Your task to perform on an android device: Open calendar and show me the fourth week of next month Image 0: 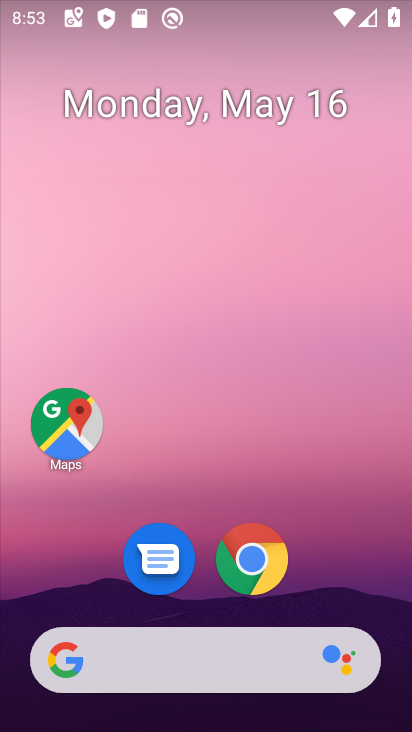
Step 0: drag from (288, 601) to (284, 32)
Your task to perform on an android device: Open calendar and show me the fourth week of next month Image 1: 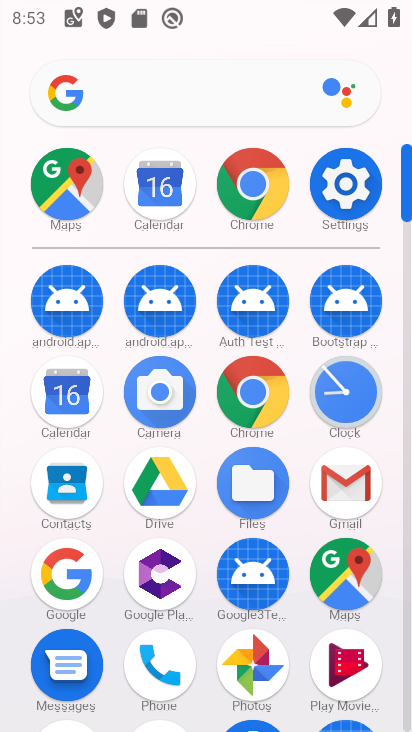
Step 1: click (157, 202)
Your task to perform on an android device: Open calendar and show me the fourth week of next month Image 2: 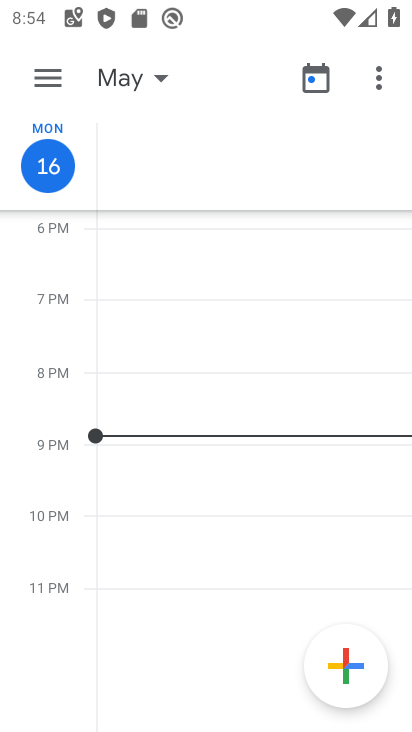
Step 2: click (132, 76)
Your task to perform on an android device: Open calendar and show me the fourth week of next month Image 3: 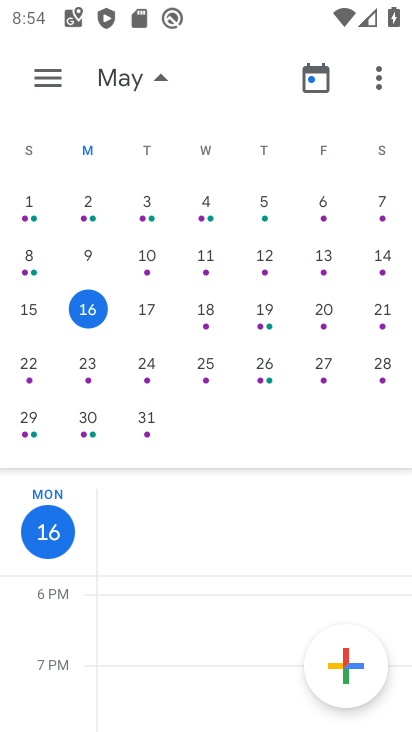
Step 3: drag from (304, 308) to (2, 357)
Your task to perform on an android device: Open calendar and show me the fourth week of next month Image 4: 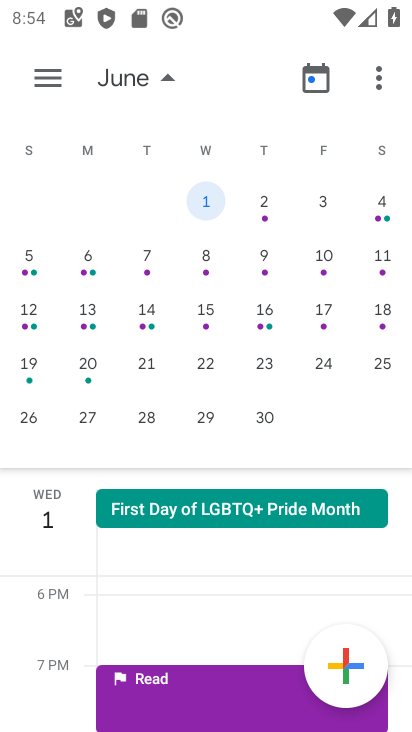
Step 4: click (33, 375)
Your task to perform on an android device: Open calendar and show me the fourth week of next month Image 5: 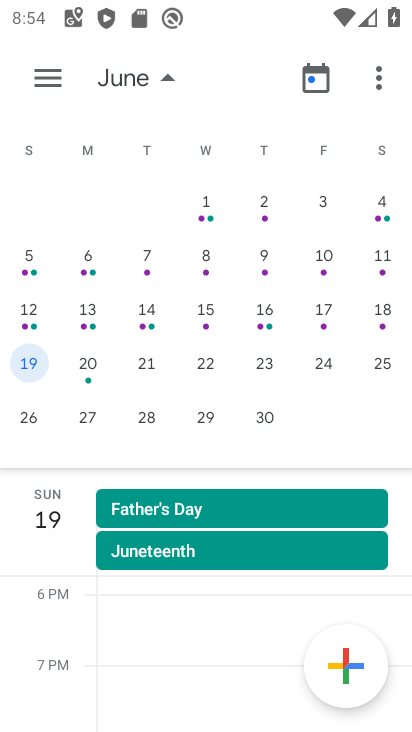
Step 5: task complete